Your task to perform on an android device: find photos in the google photos app Image 0: 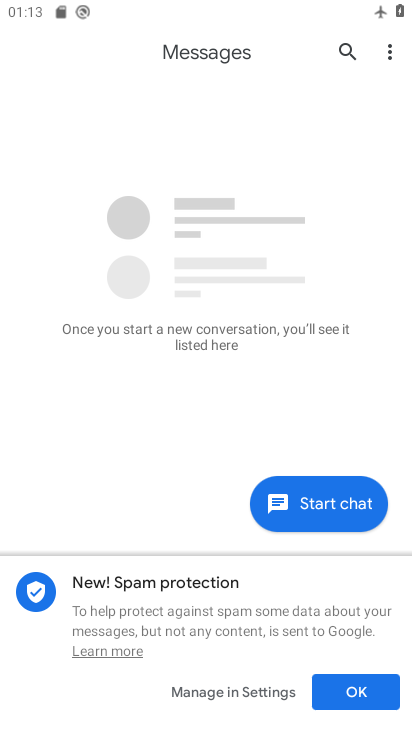
Step 0: press home button
Your task to perform on an android device: find photos in the google photos app Image 1: 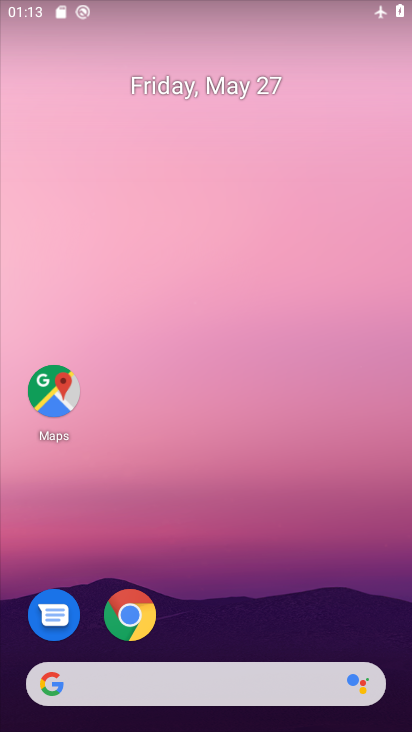
Step 1: drag from (355, 611) to (363, 297)
Your task to perform on an android device: find photos in the google photos app Image 2: 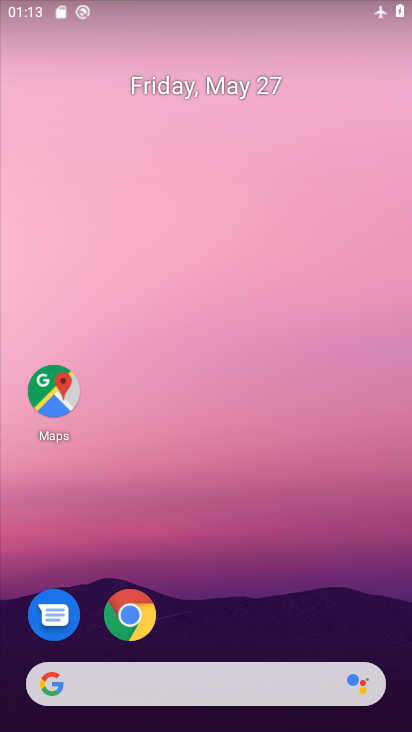
Step 2: drag from (360, 607) to (360, 302)
Your task to perform on an android device: find photos in the google photos app Image 3: 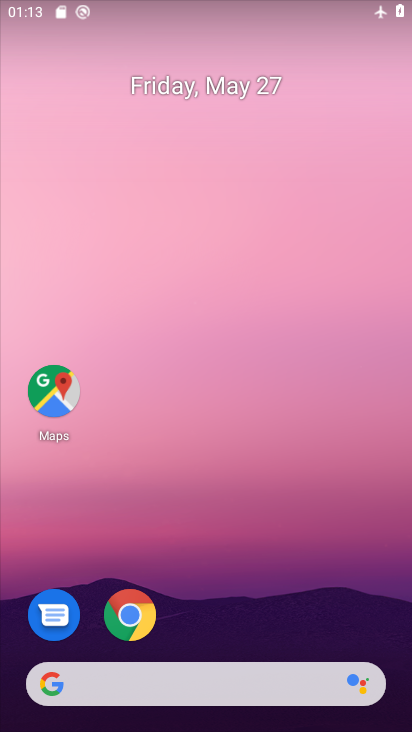
Step 3: drag from (295, 604) to (304, 352)
Your task to perform on an android device: find photos in the google photos app Image 4: 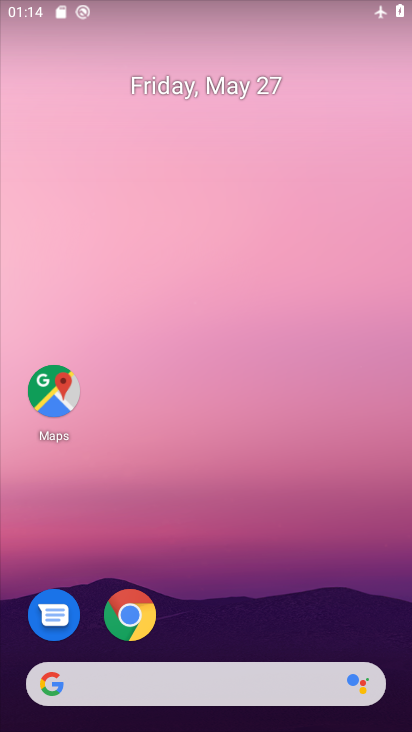
Step 4: drag from (330, 620) to (339, 157)
Your task to perform on an android device: find photos in the google photos app Image 5: 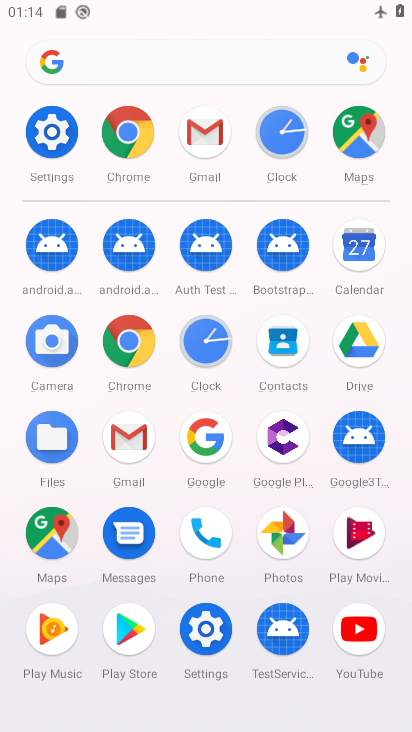
Step 5: click (274, 546)
Your task to perform on an android device: find photos in the google photos app Image 6: 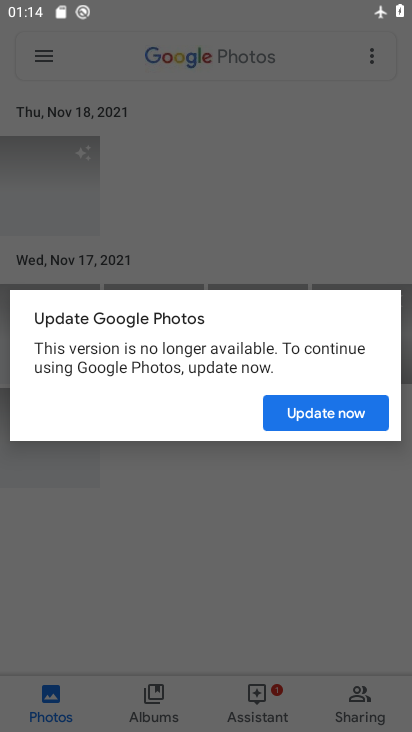
Step 6: click (334, 401)
Your task to perform on an android device: find photos in the google photos app Image 7: 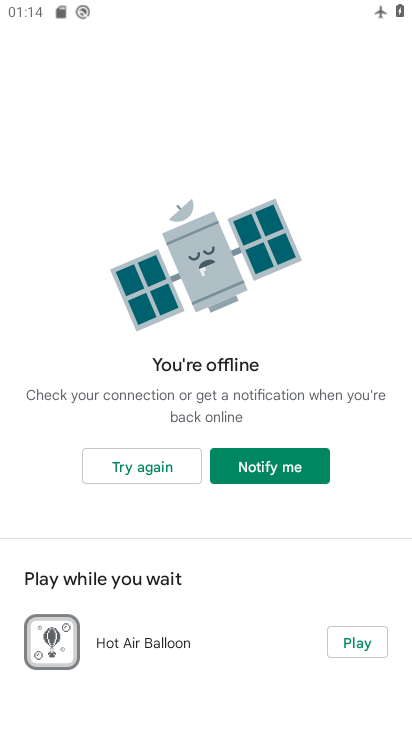
Step 7: task complete